Your task to perform on an android device: Go to Google maps Image 0: 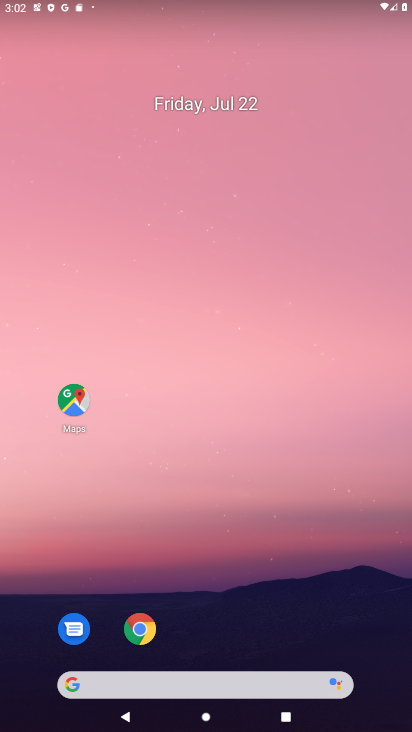
Step 0: click (68, 405)
Your task to perform on an android device: Go to Google maps Image 1: 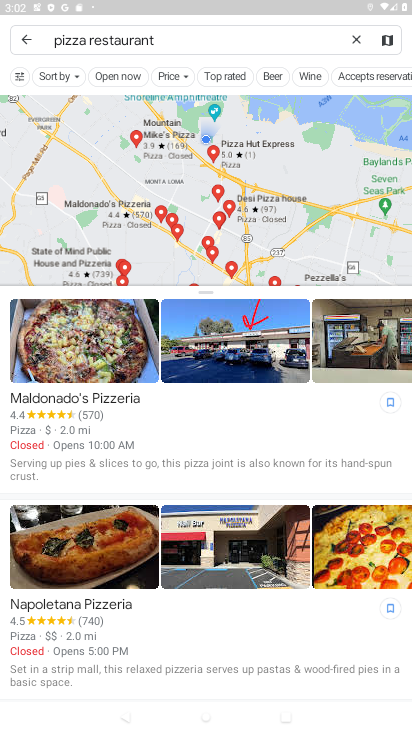
Step 1: click (25, 34)
Your task to perform on an android device: Go to Google maps Image 2: 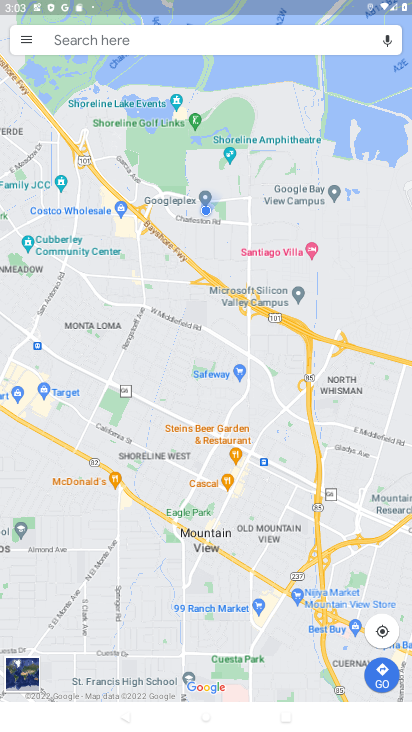
Step 2: task complete